Your task to perform on an android device: all mails in gmail Image 0: 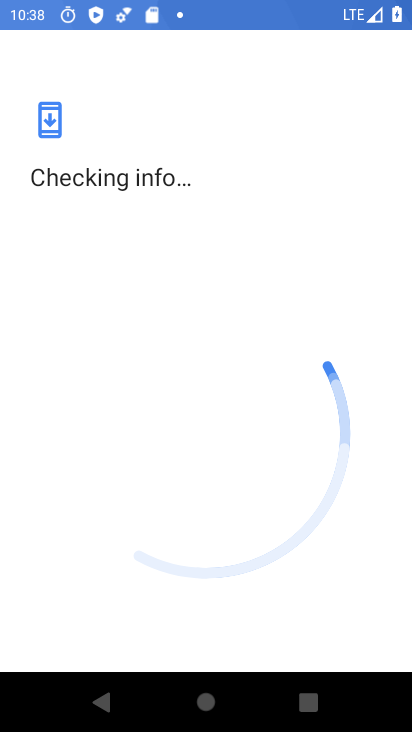
Step 0: press home button
Your task to perform on an android device: all mails in gmail Image 1: 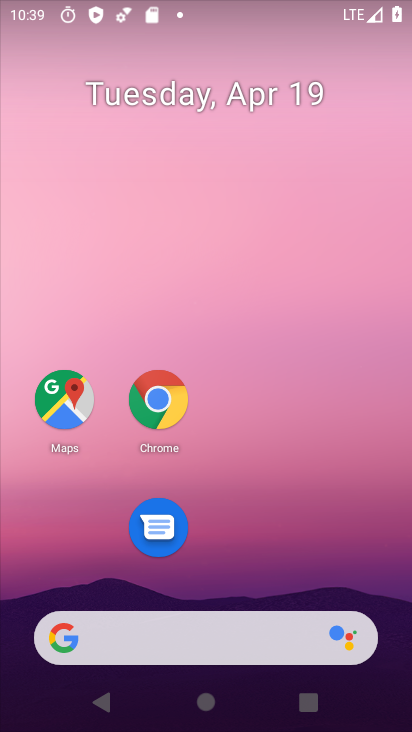
Step 1: drag from (274, 679) to (411, 269)
Your task to perform on an android device: all mails in gmail Image 2: 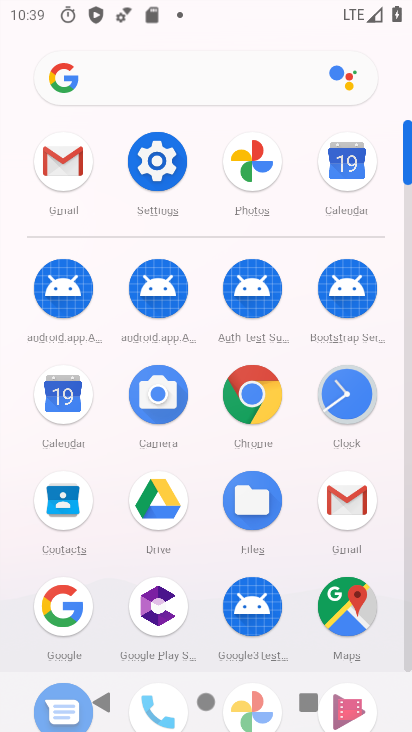
Step 2: click (65, 164)
Your task to perform on an android device: all mails in gmail Image 3: 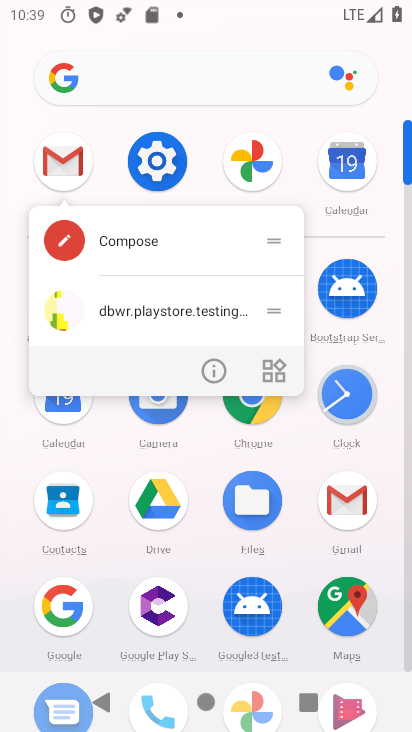
Step 3: click (61, 175)
Your task to perform on an android device: all mails in gmail Image 4: 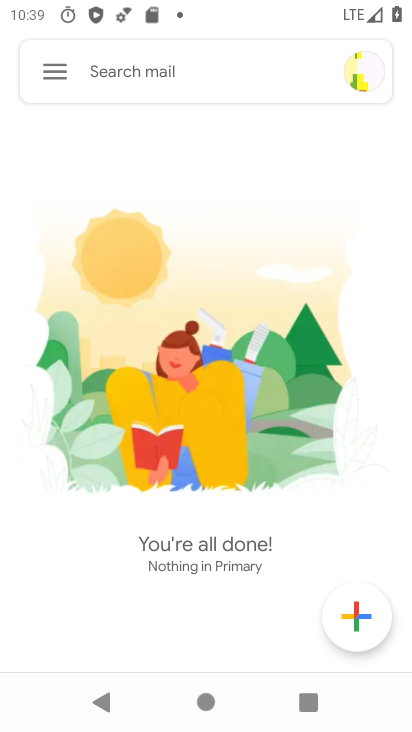
Step 4: click (61, 79)
Your task to perform on an android device: all mails in gmail Image 5: 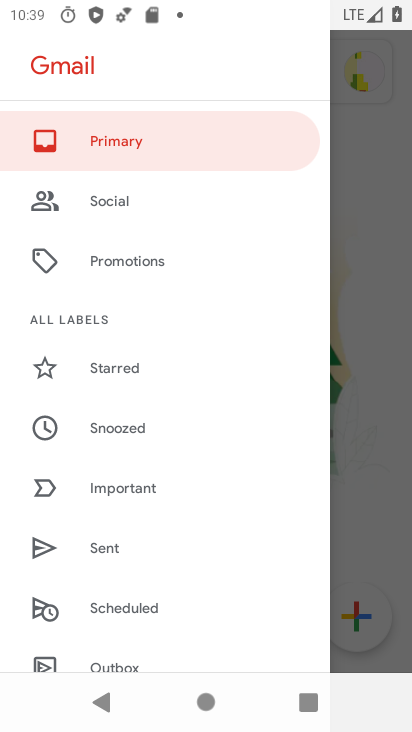
Step 5: drag from (105, 537) to (264, 306)
Your task to perform on an android device: all mails in gmail Image 6: 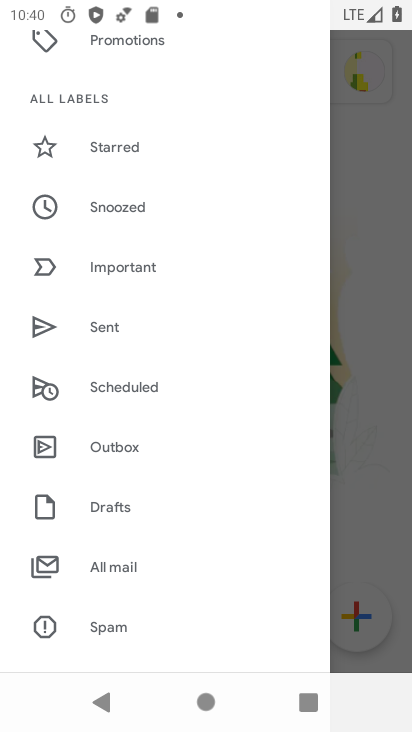
Step 6: click (97, 570)
Your task to perform on an android device: all mails in gmail Image 7: 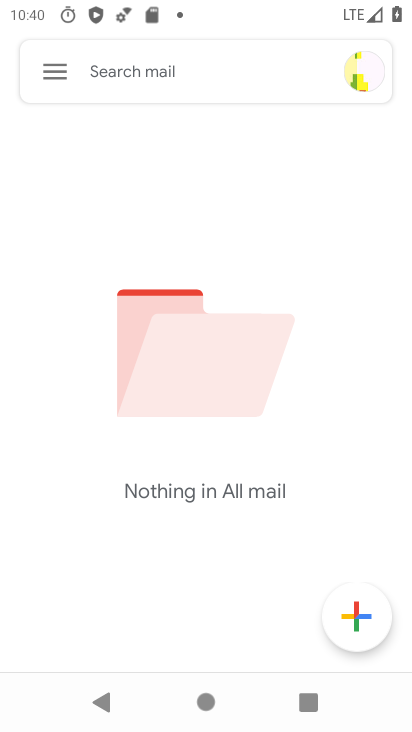
Step 7: task complete